Your task to perform on an android device: Go to location settings Image 0: 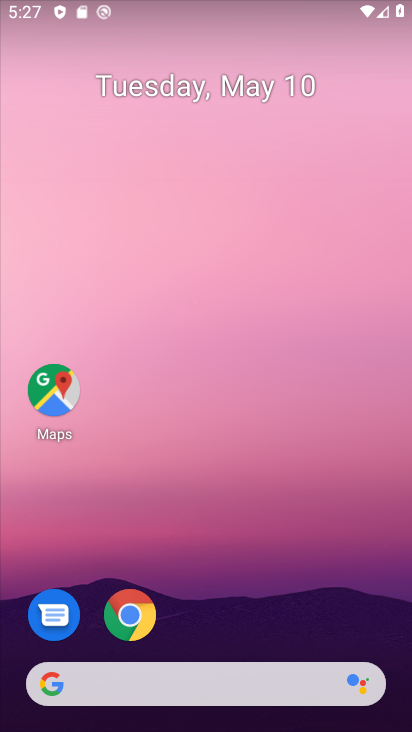
Step 0: drag from (237, 619) to (293, 2)
Your task to perform on an android device: Go to location settings Image 1: 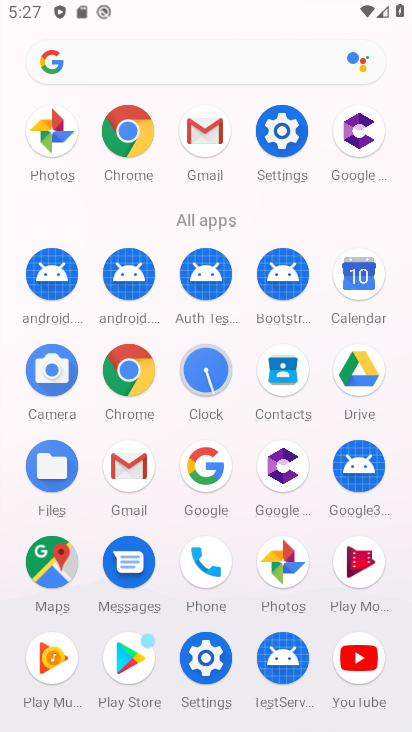
Step 1: click (288, 174)
Your task to perform on an android device: Go to location settings Image 2: 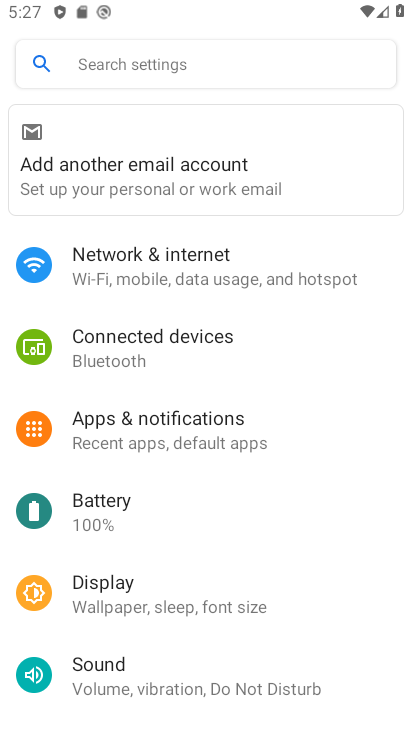
Step 2: drag from (181, 601) to (213, 204)
Your task to perform on an android device: Go to location settings Image 3: 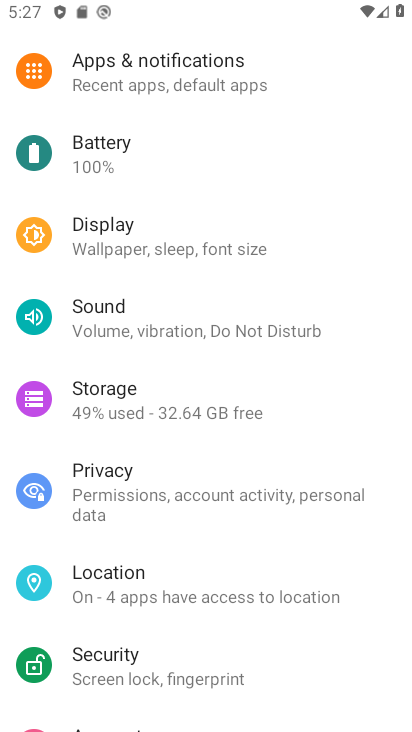
Step 3: click (150, 597)
Your task to perform on an android device: Go to location settings Image 4: 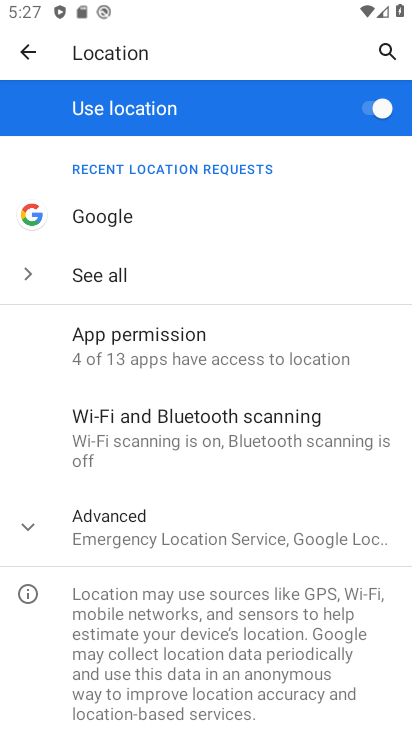
Step 4: task complete